Your task to perform on an android device: turn off notifications settings in the gmail app Image 0: 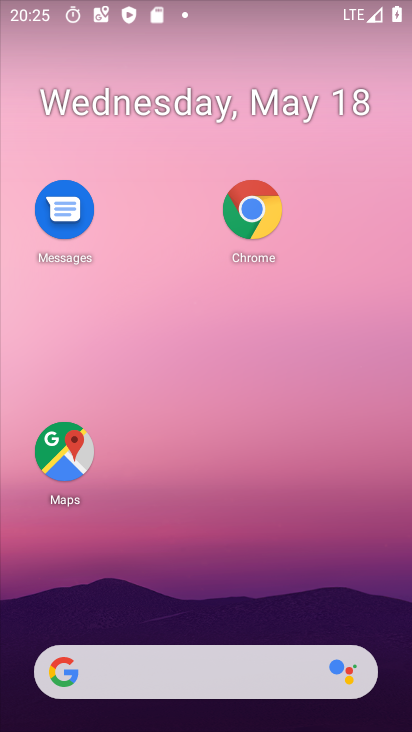
Step 0: drag from (203, 615) to (88, 22)
Your task to perform on an android device: turn off notifications settings in the gmail app Image 1: 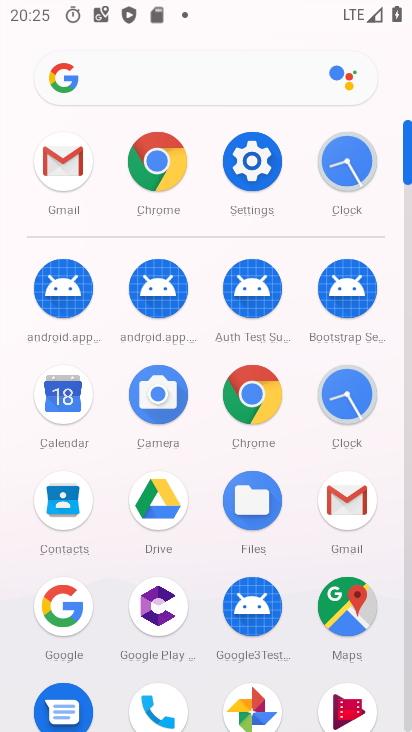
Step 1: click (42, 174)
Your task to perform on an android device: turn off notifications settings in the gmail app Image 2: 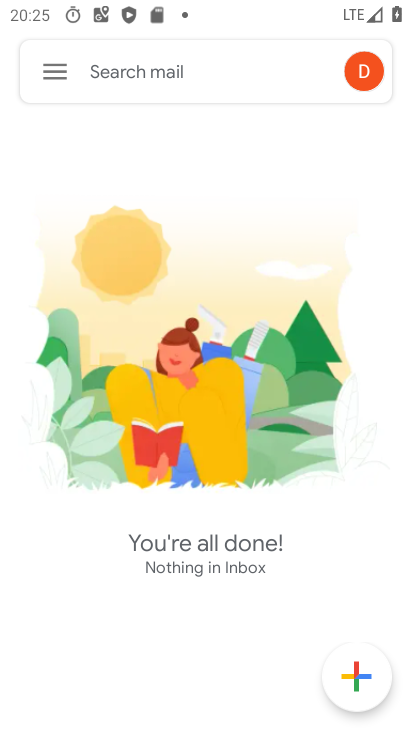
Step 2: click (49, 75)
Your task to perform on an android device: turn off notifications settings in the gmail app Image 3: 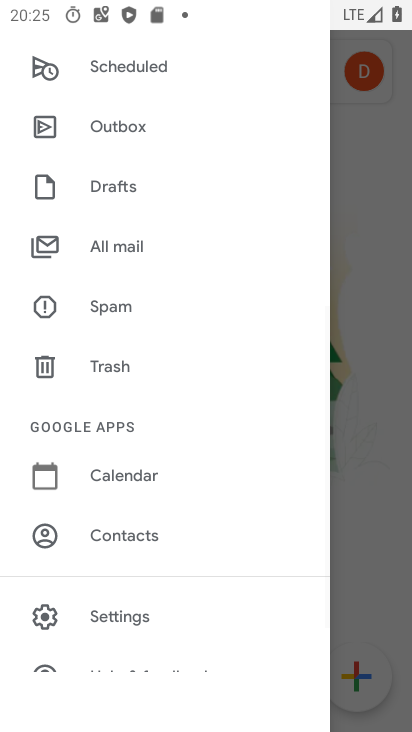
Step 3: click (140, 622)
Your task to perform on an android device: turn off notifications settings in the gmail app Image 4: 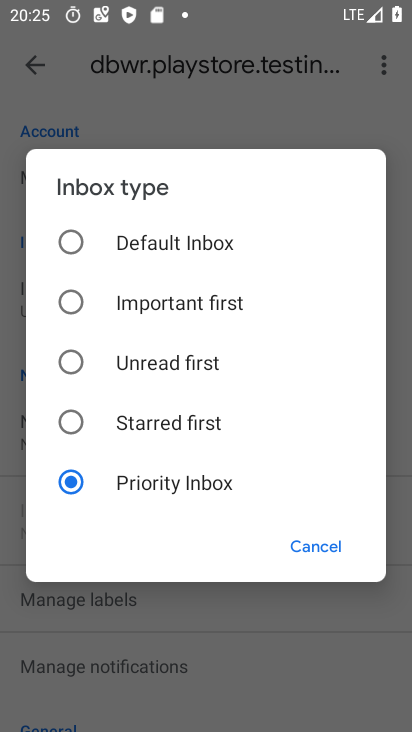
Step 4: click (305, 544)
Your task to perform on an android device: turn off notifications settings in the gmail app Image 5: 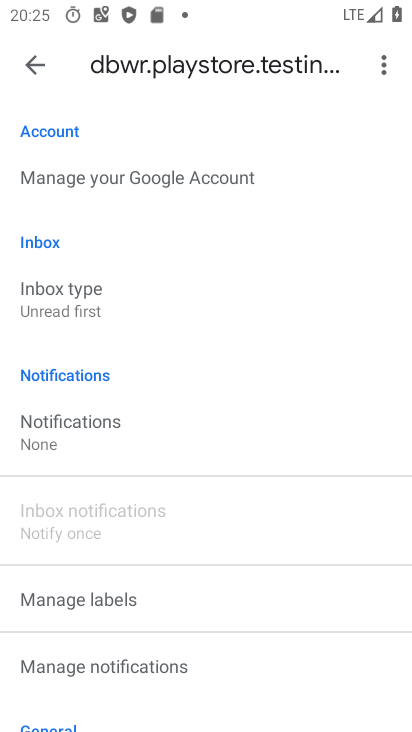
Step 5: click (121, 448)
Your task to perform on an android device: turn off notifications settings in the gmail app Image 6: 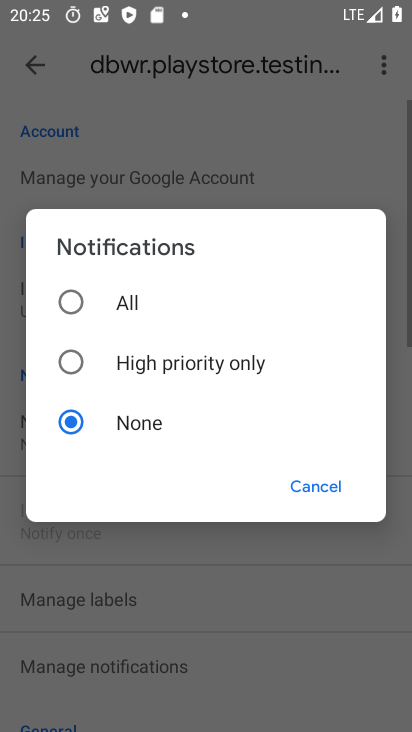
Step 6: task complete